Your task to perform on an android device: change timer sound Image 0: 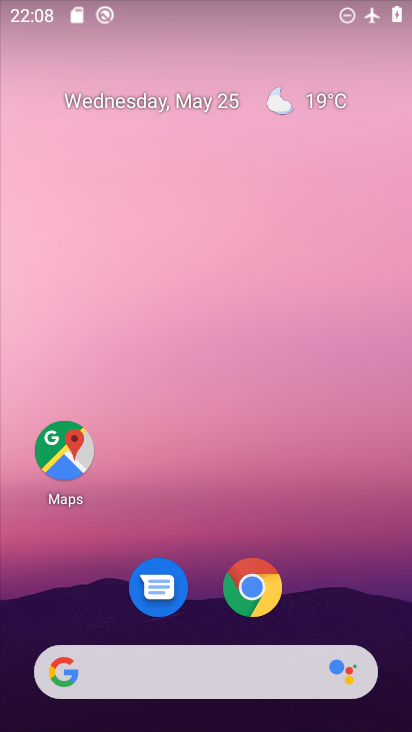
Step 0: drag from (374, 606) to (361, 126)
Your task to perform on an android device: change timer sound Image 1: 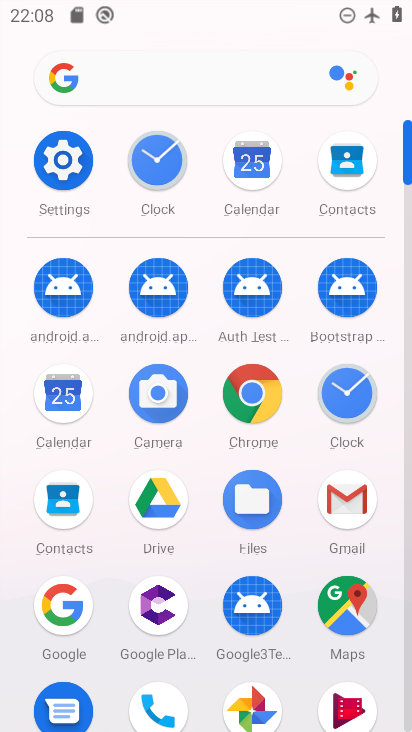
Step 1: click (347, 388)
Your task to perform on an android device: change timer sound Image 2: 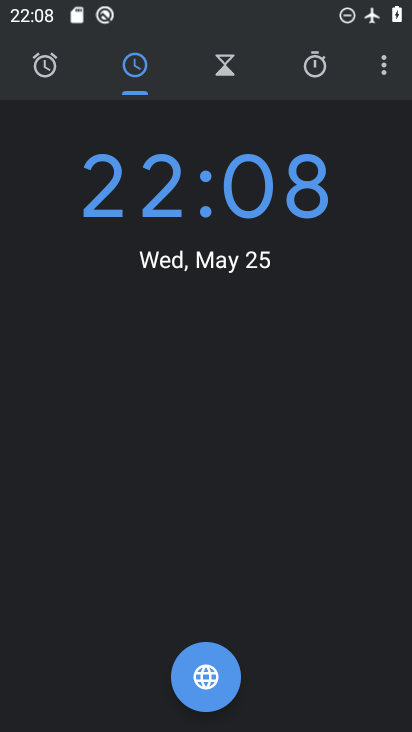
Step 2: click (382, 73)
Your task to perform on an android device: change timer sound Image 3: 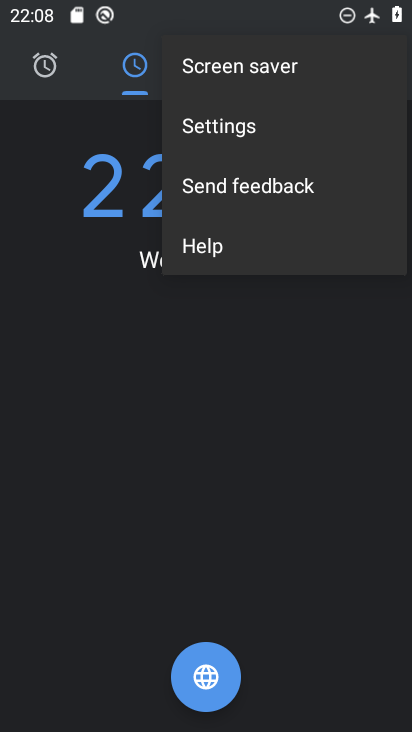
Step 3: click (225, 138)
Your task to perform on an android device: change timer sound Image 4: 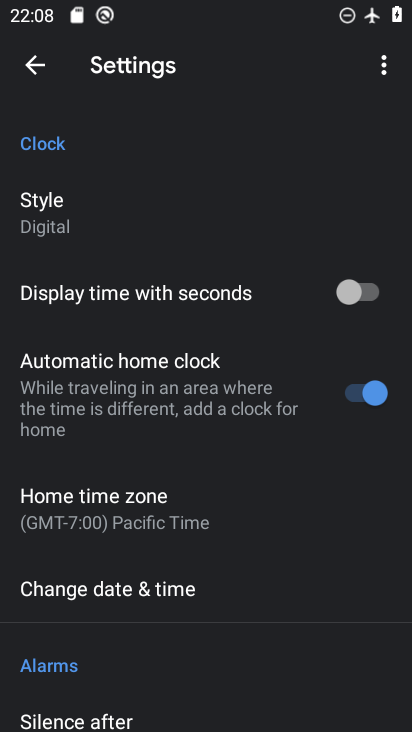
Step 4: drag from (241, 646) to (237, 192)
Your task to perform on an android device: change timer sound Image 5: 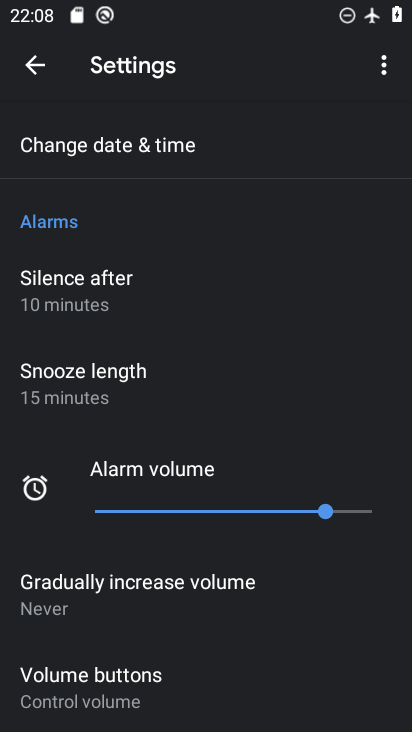
Step 5: drag from (203, 590) to (194, 149)
Your task to perform on an android device: change timer sound Image 6: 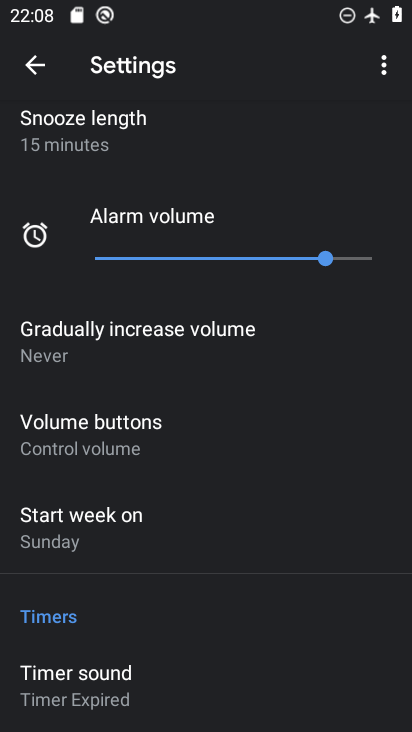
Step 6: drag from (160, 598) to (156, 309)
Your task to perform on an android device: change timer sound Image 7: 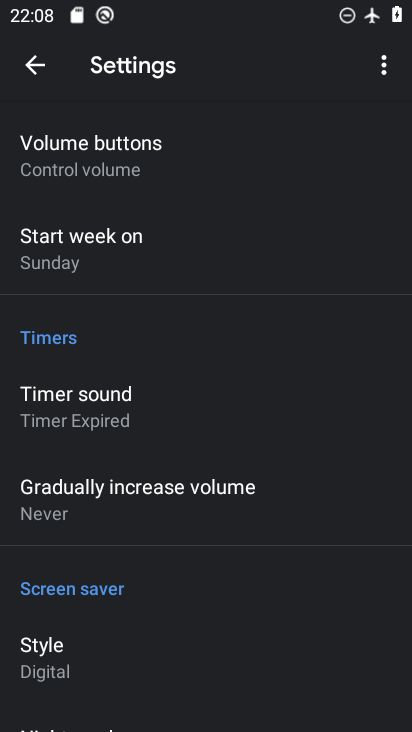
Step 7: click (74, 405)
Your task to perform on an android device: change timer sound Image 8: 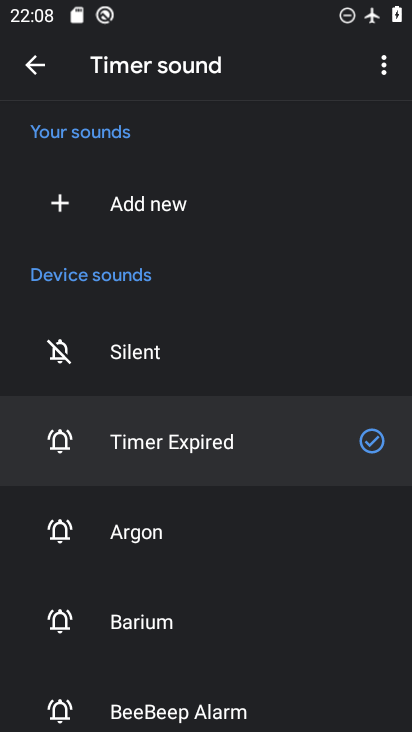
Step 8: drag from (207, 659) to (205, 262)
Your task to perform on an android device: change timer sound Image 9: 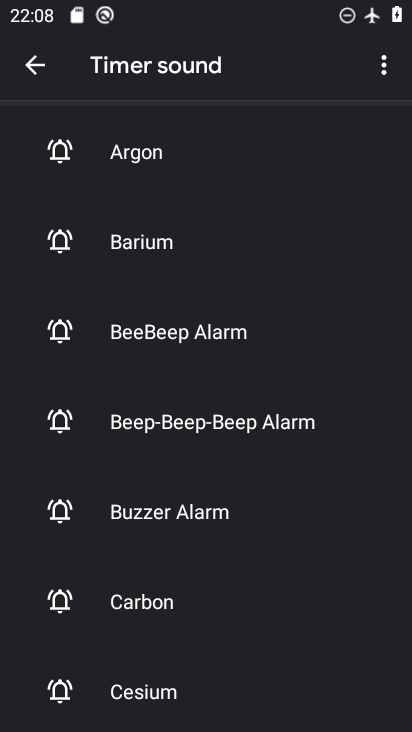
Step 9: click (226, 324)
Your task to perform on an android device: change timer sound Image 10: 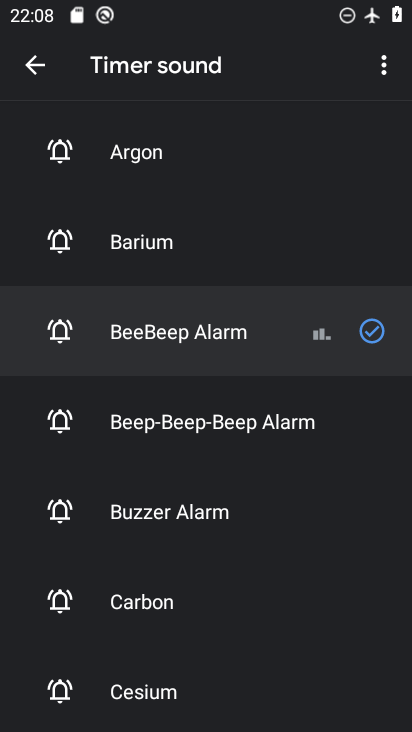
Step 10: task complete